Your task to perform on an android device: Go to location settings Image 0: 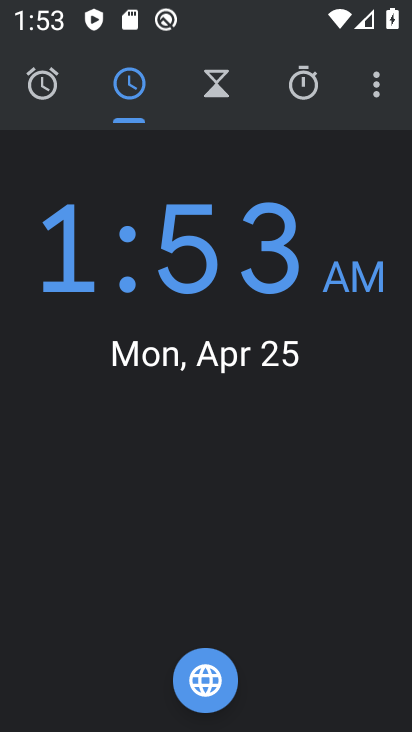
Step 0: press back button
Your task to perform on an android device: Go to location settings Image 1: 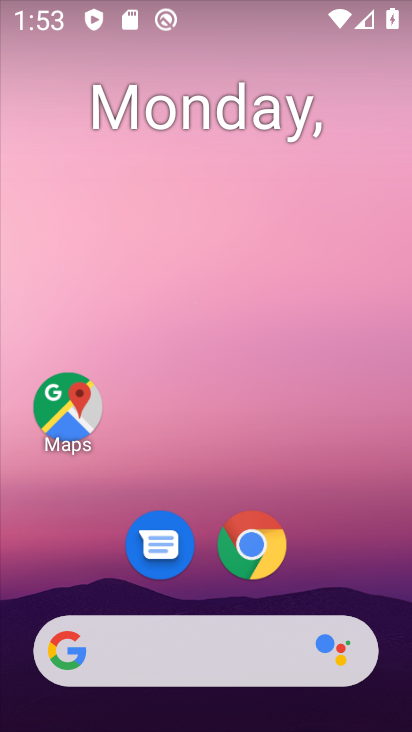
Step 1: drag from (170, 543) to (323, 102)
Your task to perform on an android device: Go to location settings Image 2: 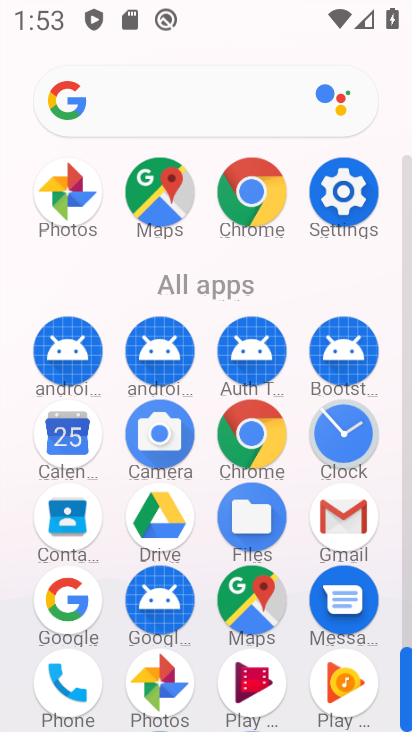
Step 2: click (350, 197)
Your task to perform on an android device: Go to location settings Image 3: 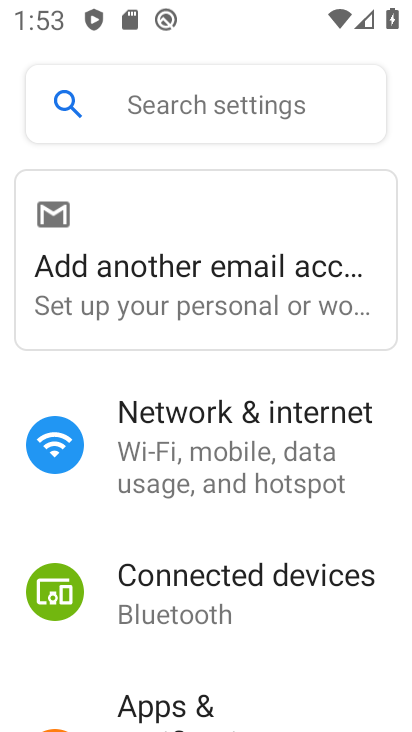
Step 3: drag from (234, 652) to (366, 127)
Your task to perform on an android device: Go to location settings Image 4: 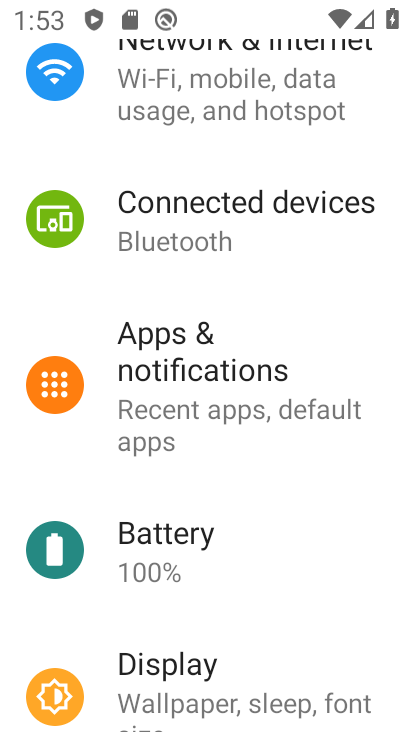
Step 4: drag from (238, 616) to (336, 46)
Your task to perform on an android device: Go to location settings Image 5: 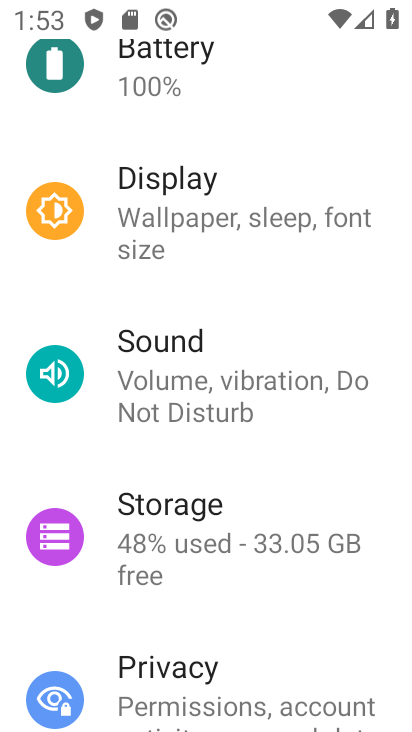
Step 5: drag from (225, 567) to (339, 86)
Your task to perform on an android device: Go to location settings Image 6: 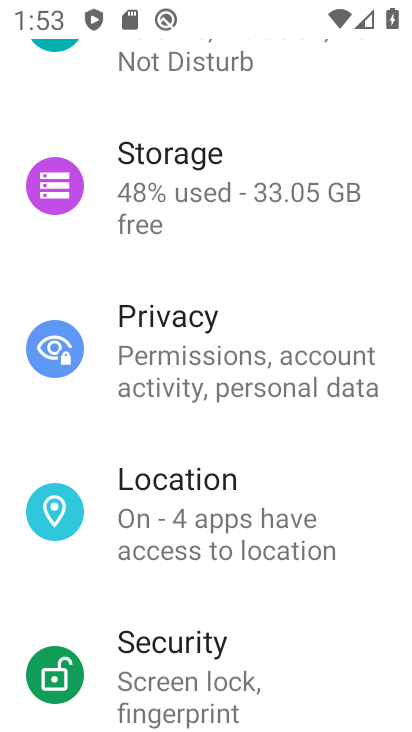
Step 6: click (223, 524)
Your task to perform on an android device: Go to location settings Image 7: 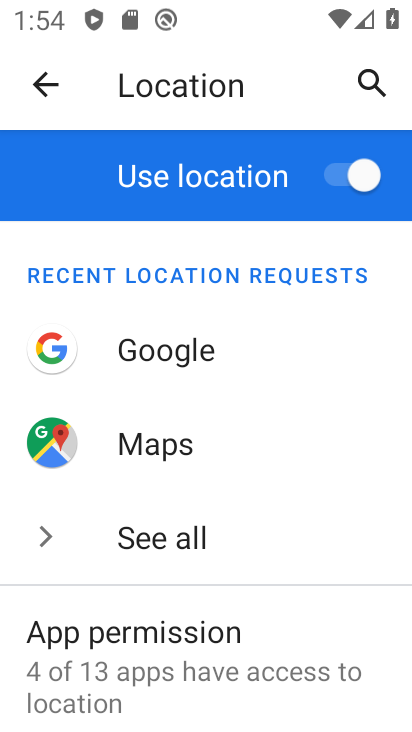
Step 7: task complete